Your task to perform on an android device: refresh tabs in the chrome app Image 0: 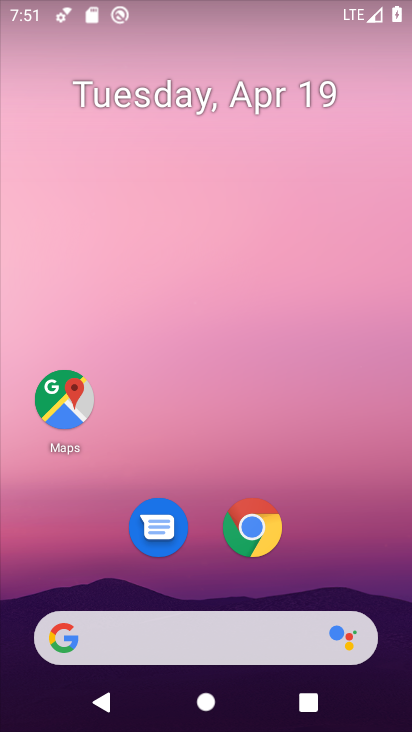
Step 0: click (265, 541)
Your task to perform on an android device: refresh tabs in the chrome app Image 1: 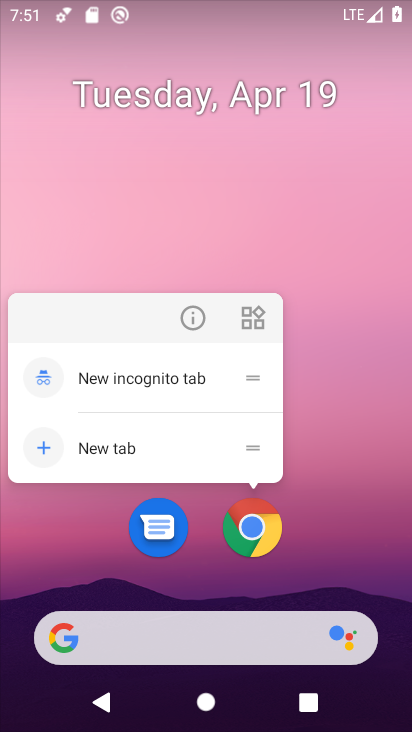
Step 1: click (270, 521)
Your task to perform on an android device: refresh tabs in the chrome app Image 2: 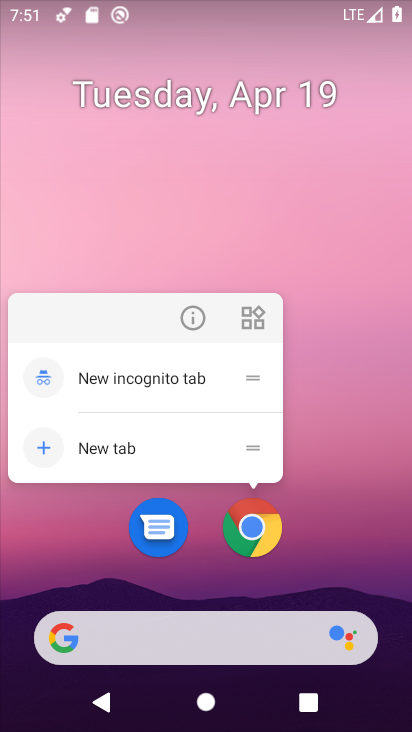
Step 2: click (262, 532)
Your task to perform on an android device: refresh tabs in the chrome app Image 3: 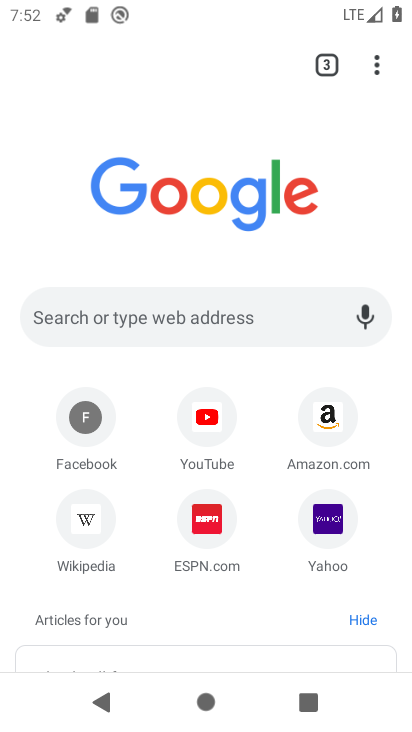
Step 3: click (323, 70)
Your task to perform on an android device: refresh tabs in the chrome app Image 4: 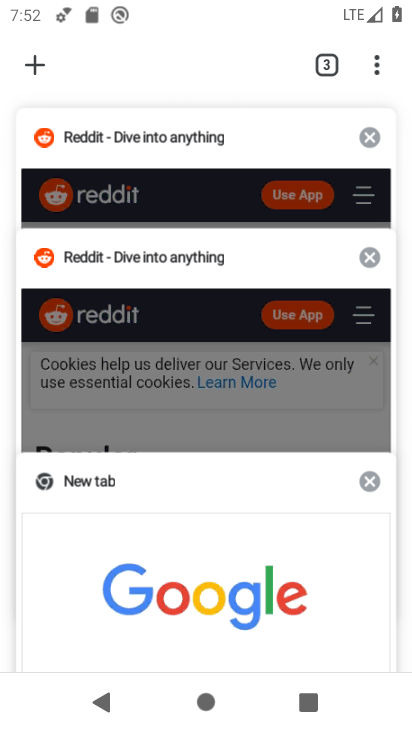
Step 4: click (405, 78)
Your task to perform on an android device: refresh tabs in the chrome app Image 5: 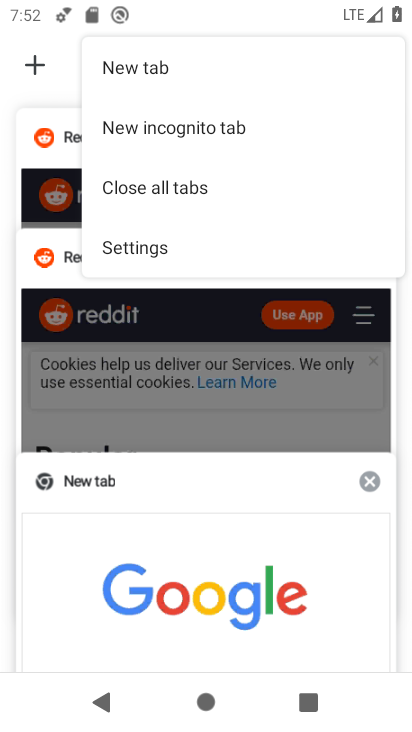
Step 5: click (62, 75)
Your task to perform on an android device: refresh tabs in the chrome app Image 6: 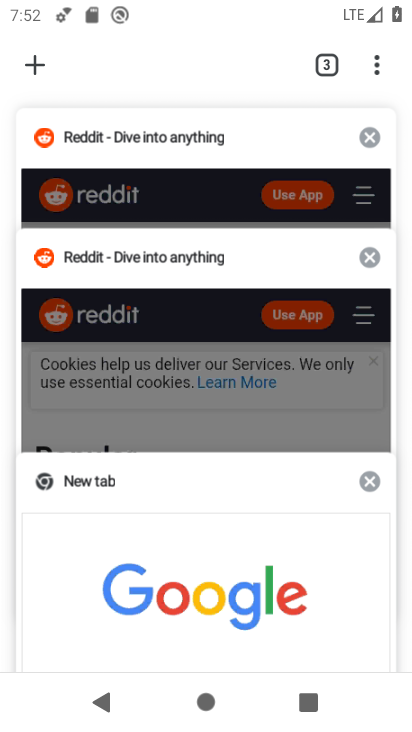
Step 6: click (172, 537)
Your task to perform on an android device: refresh tabs in the chrome app Image 7: 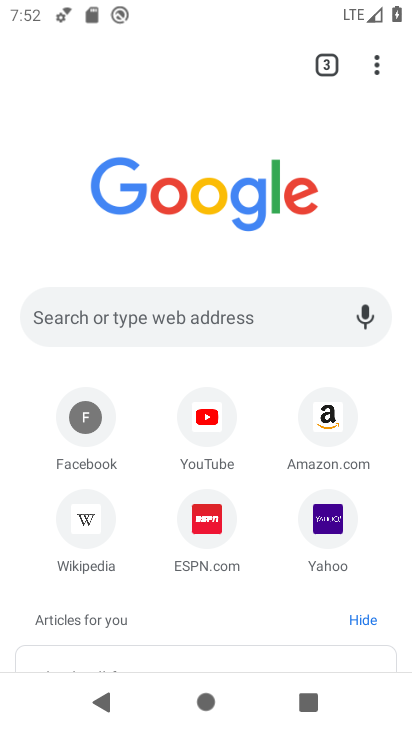
Step 7: click (377, 78)
Your task to perform on an android device: refresh tabs in the chrome app Image 8: 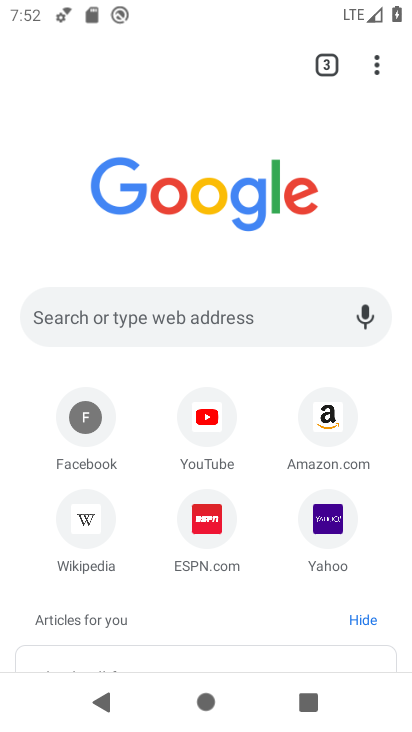
Step 8: click (407, 76)
Your task to perform on an android device: refresh tabs in the chrome app Image 9: 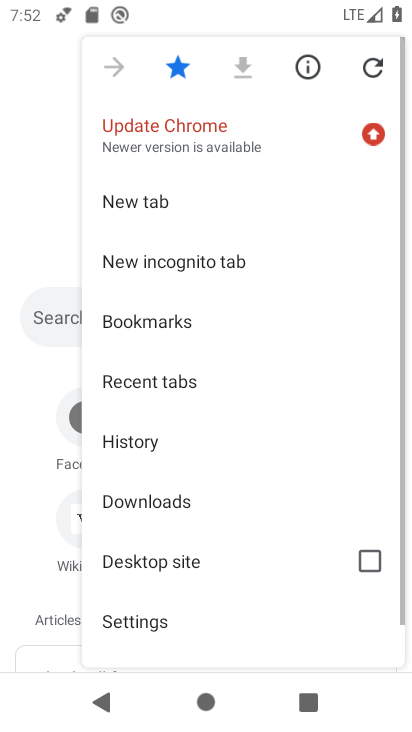
Step 9: click (375, 69)
Your task to perform on an android device: refresh tabs in the chrome app Image 10: 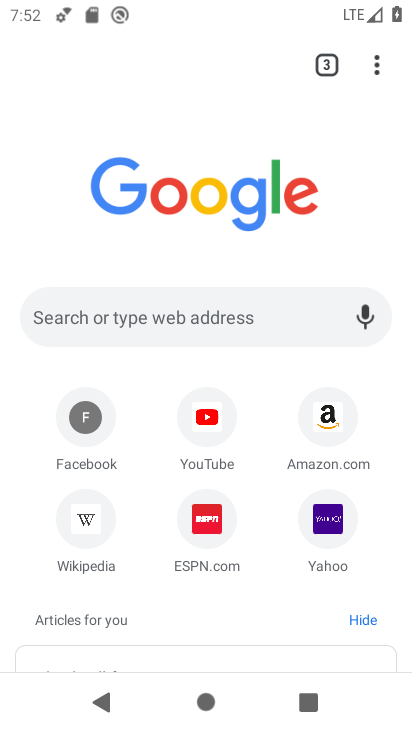
Step 10: task complete